Your task to perform on an android device: remove spam from my inbox in the gmail app Image 0: 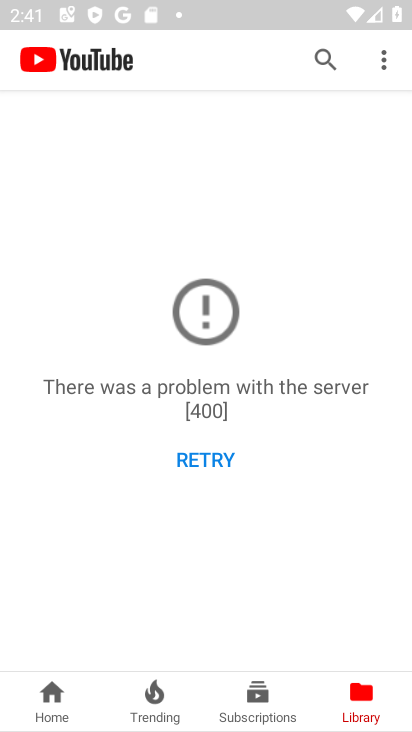
Step 0: press back button
Your task to perform on an android device: remove spam from my inbox in the gmail app Image 1: 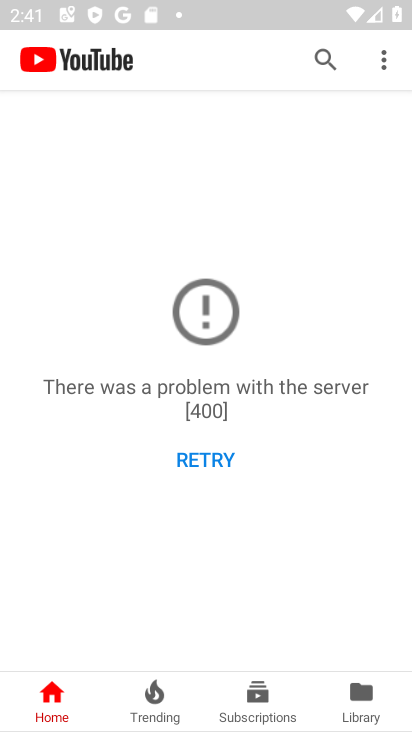
Step 1: press home button
Your task to perform on an android device: remove spam from my inbox in the gmail app Image 2: 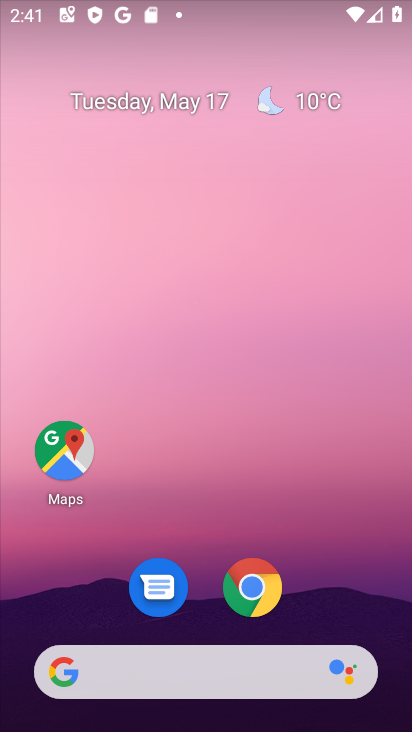
Step 2: drag from (338, 577) to (208, 0)
Your task to perform on an android device: remove spam from my inbox in the gmail app Image 3: 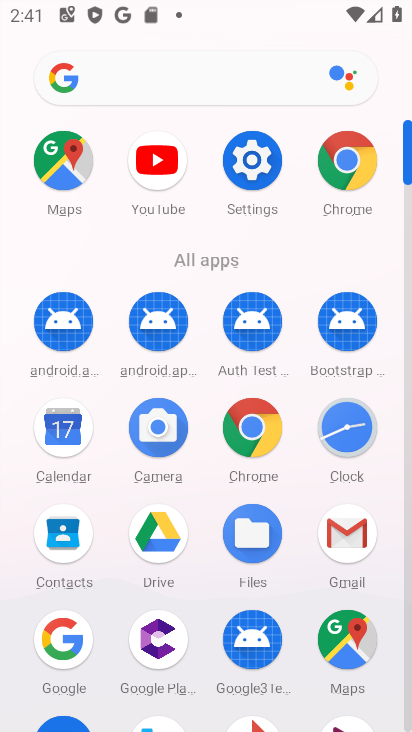
Step 3: drag from (25, 570) to (27, 277)
Your task to perform on an android device: remove spam from my inbox in the gmail app Image 4: 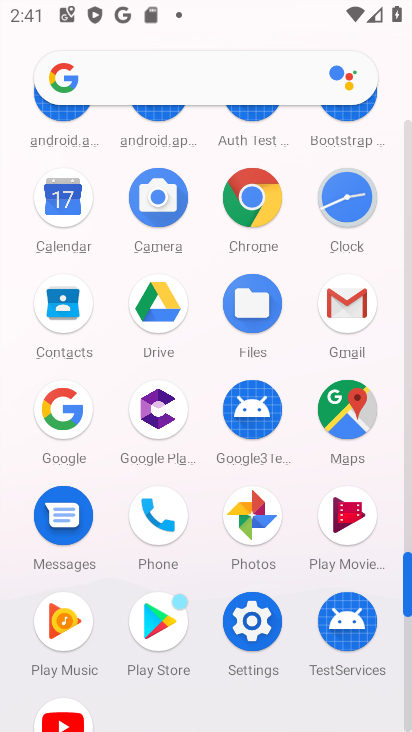
Step 4: click (341, 295)
Your task to perform on an android device: remove spam from my inbox in the gmail app Image 5: 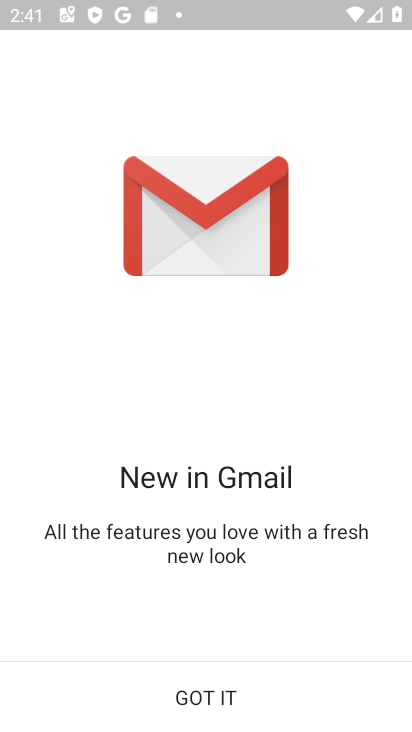
Step 5: click (258, 711)
Your task to perform on an android device: remove spam from my inbox in the gmail app Image 6: 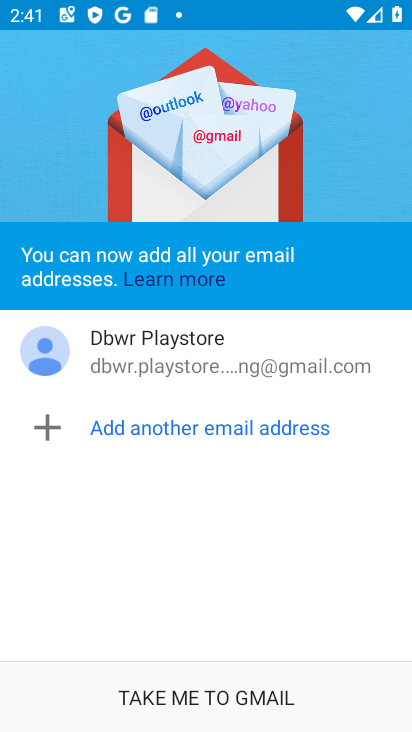
Step 6: click (257, 706)
Your task to perform on an android device: remove spam from my inbox in the gmail app Image 7: 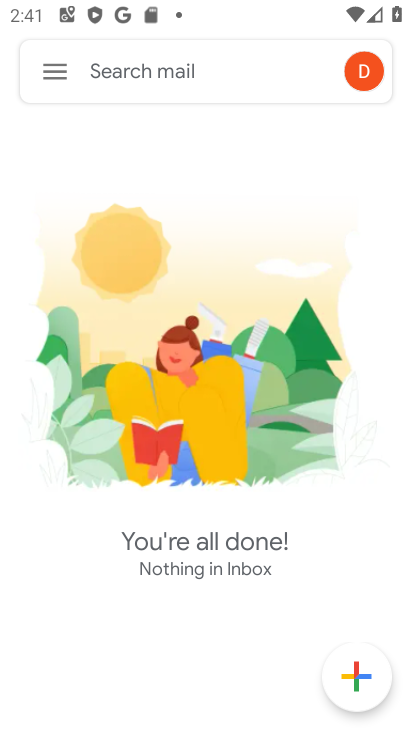
Step 7: click (51, 65)
Your task to perform on an android device: remove spam from my inbox in the gmail app Image 8: 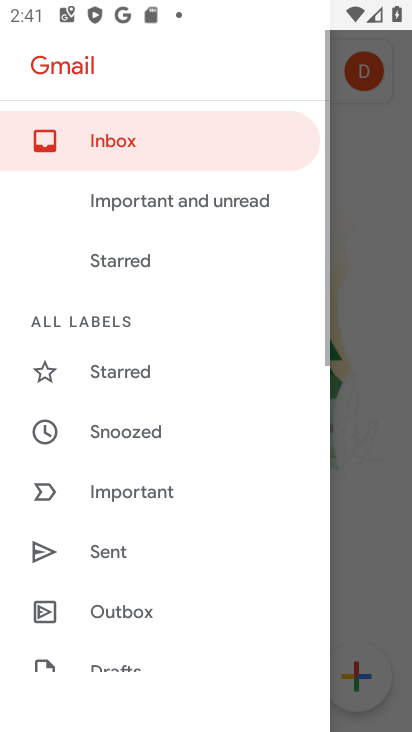
Step 8: drag from (148, 605) to (169, 171)
Your task to perform on an android device: remove spam from my inbox in the gmail app Image 9: 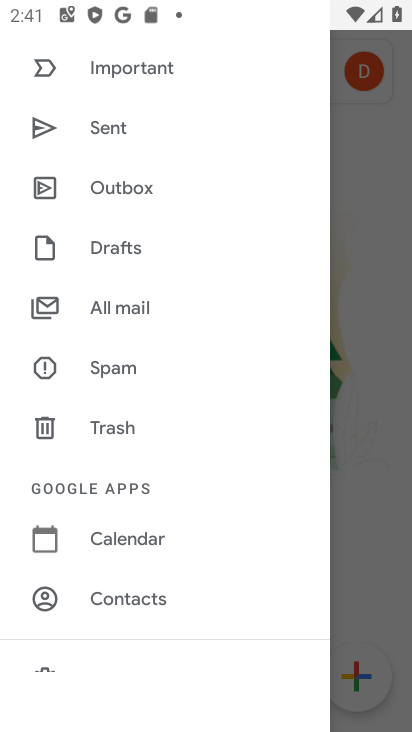
Step 9: click (115, 357)
Your task to perform on an android device: remove spam from my inbox in the gmail app Image 10: 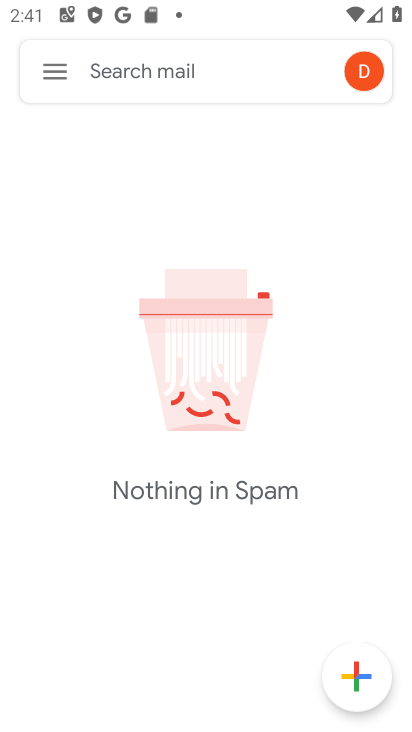
Step 10: task complete